Your task to perform on an android device: Show the shopping cart on walmart. Image 0: 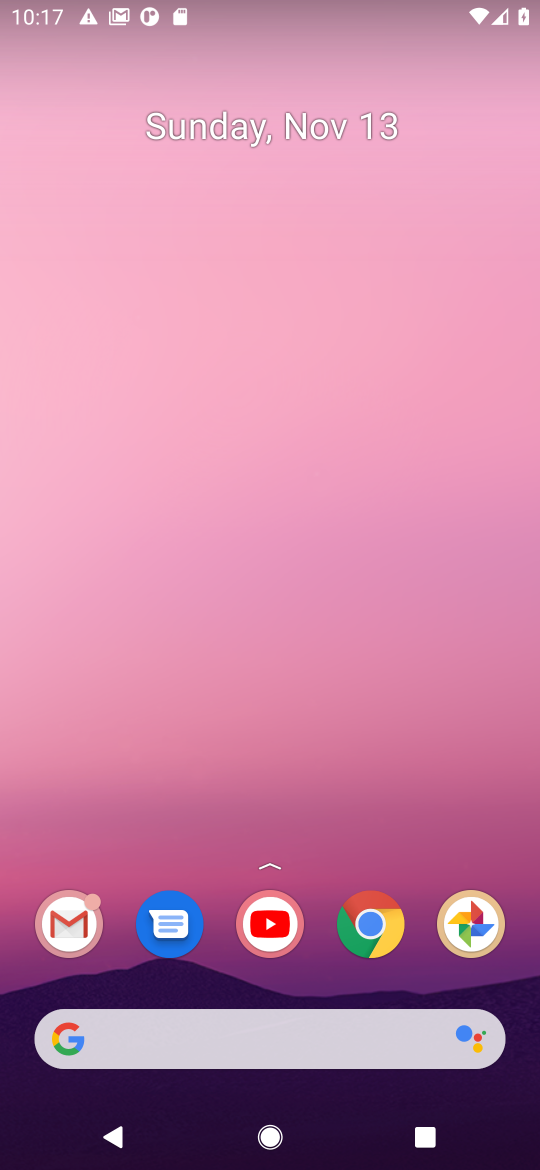
Step 0: click (377, 937)
Your task to perform on an android device: Show the shopping cart on walmart. Image 1: 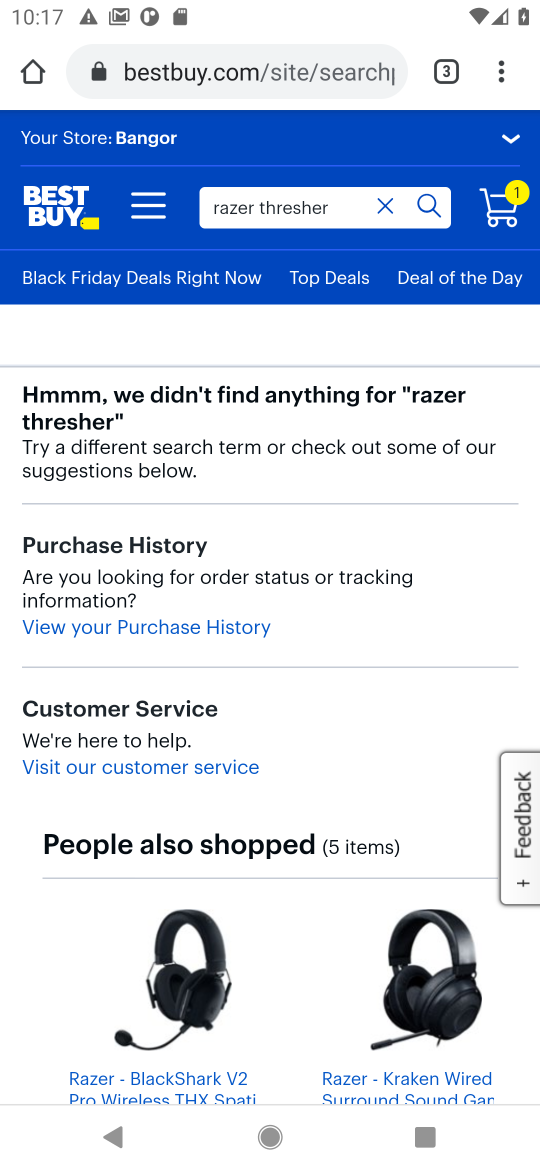
Step 1: click (229, 77)
Your task to perform on an android device: Show the shopping cart on walmart. Image 2: 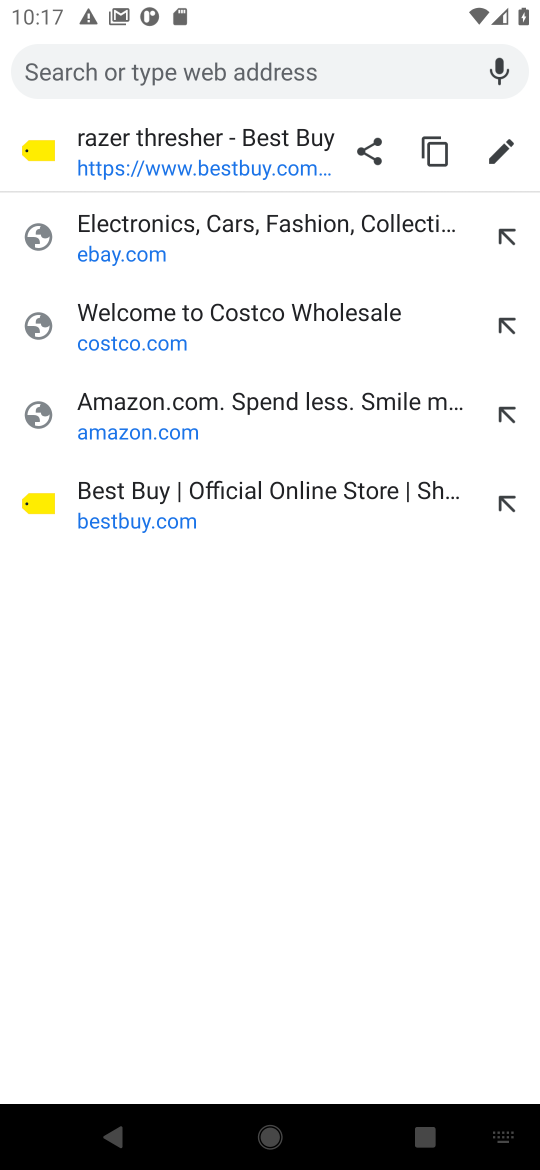
Step 2: type "walmart.com"
Your task to perform on an android device: Show the shopping cart on walmart. Image 3: 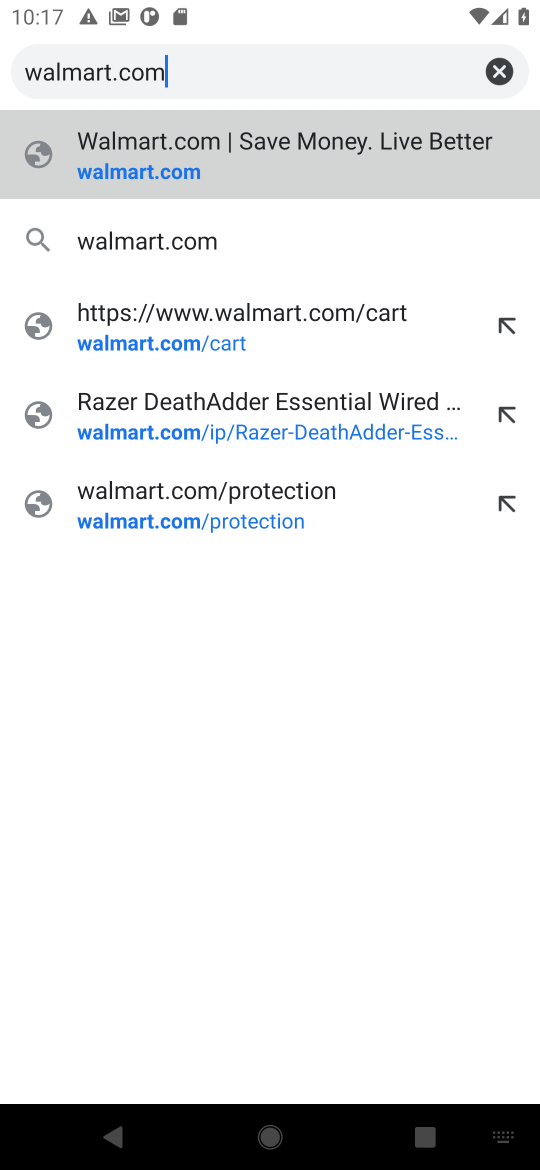
Step 3: click (125, 165)
Your task to perform on an android device: Show the shopping cart on walmart. Image 4: 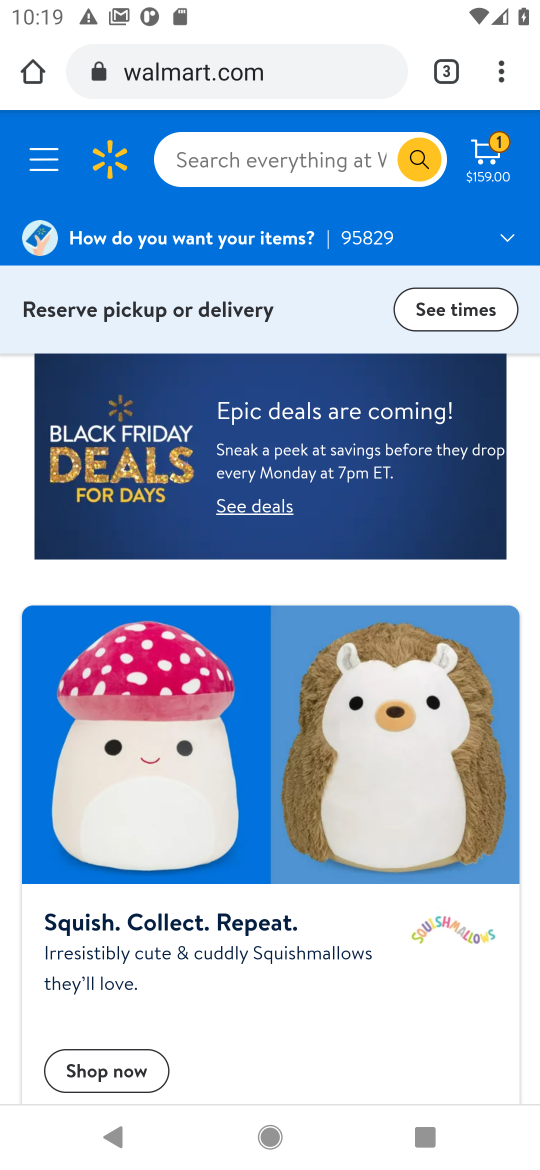
Step 4: click (481, 144)
Your task to perform on an android device: Show the shopping cart on walmart. Image 5: 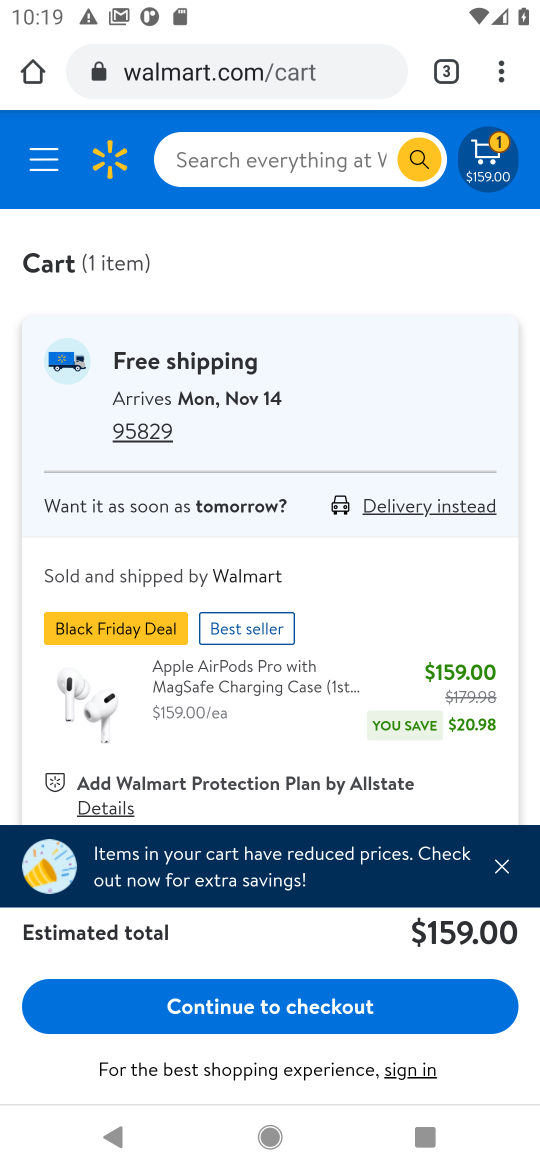
Step 5: task complete